Your task to perform on an android device: Open ESPN.com Image 0: 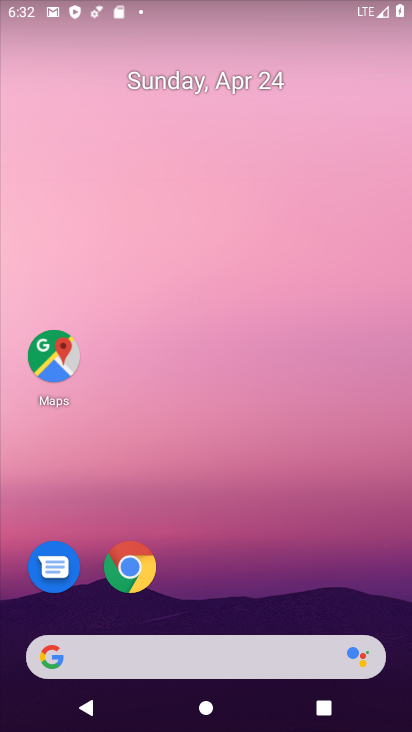
Step 0: drag from (328, 602) to (242, 55)
Your task to perform on an android device: Open ESPN.com Image 1: 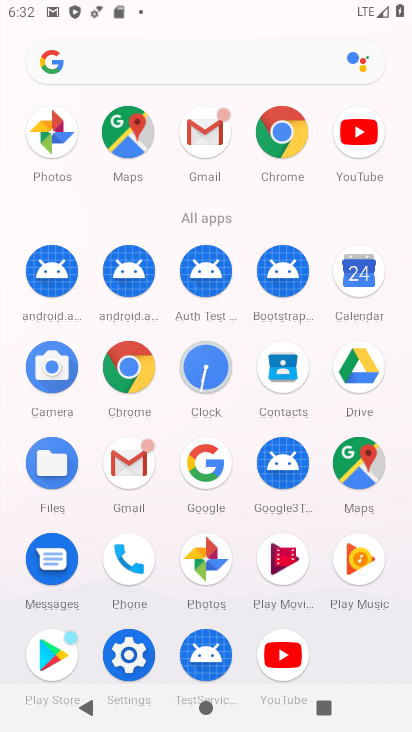
Step 1: click (115, 359)
Your task to perform on an android device: Open ESPN.com Image 2: 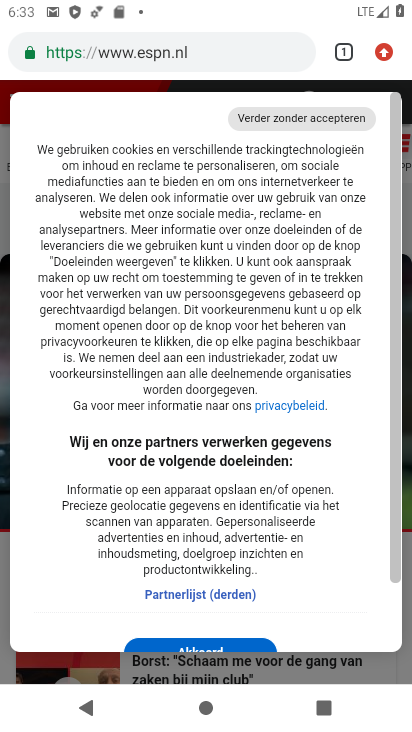
Step 2: press back button
Your task to perform on an android device: Open ESPN.com Image 3: 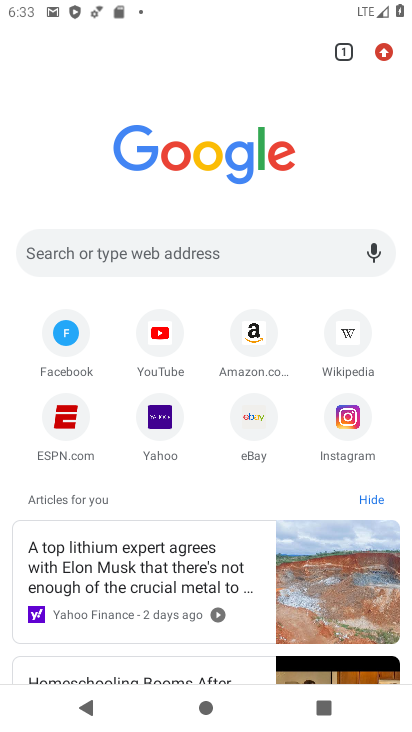
Step 3: click (83, 412)
Your task to perform on an android device: Open ESPN.com Image 4: 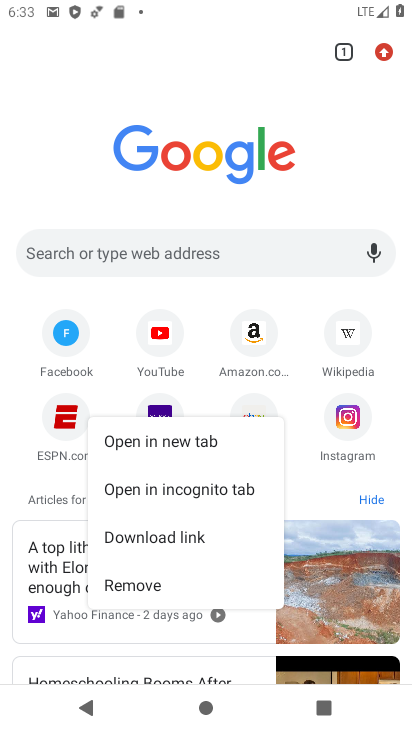
Step 4: click (63, 413)
Your task to perform on an android device: Open ESPN.com Image 5: 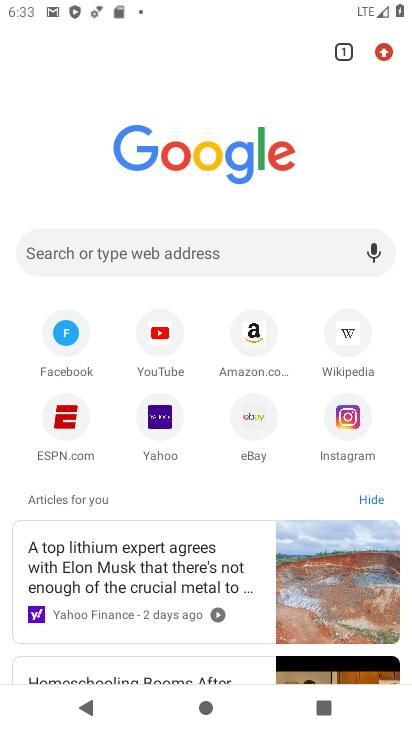
Step 5: click (67, 422)
Your task to perform on an android device: Open ESPN.com Image 6: 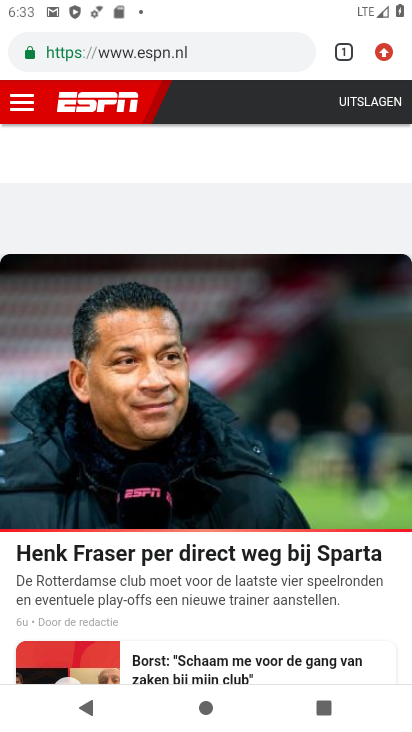
Step 6: task complete